Your task to perform on an android device: Toggle the flashlight Image 0: 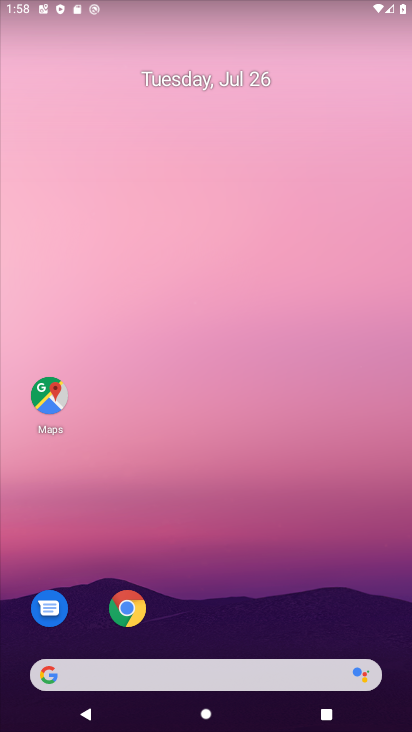
Step 0: drag from (253, 634) to (281, 134)
Your task to perform on an android device: Toggle the flashlight Image 1: 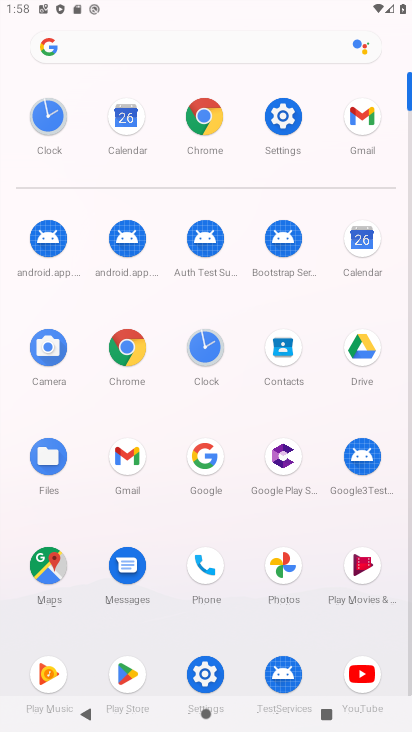
Step 1: click (295, 144)
Your task to perform on an android device: Toggle the flashlight Image 2: 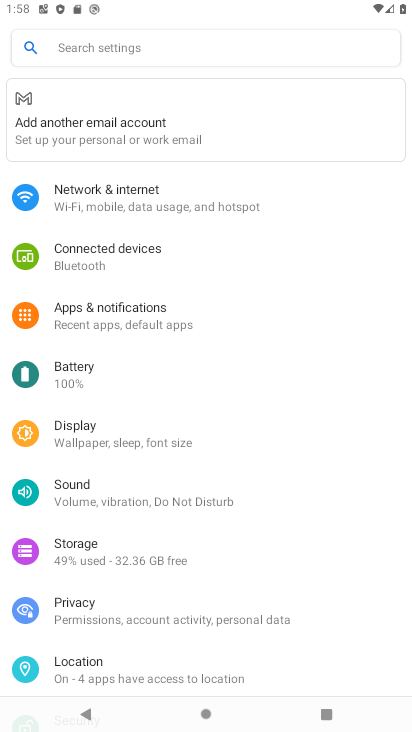
Step 2: task complete